Your task to perform on an android device: Is it going to rain tomorrow? Image 0: 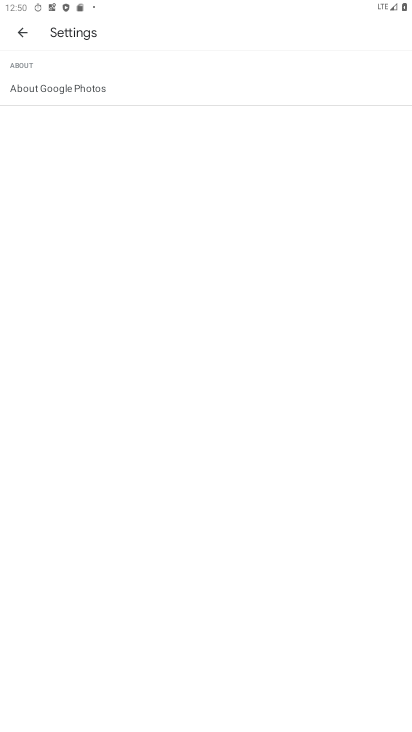
Step 0: press home button
Your task to perform on an android device: Is it going to rain tomorrow? Image 1: 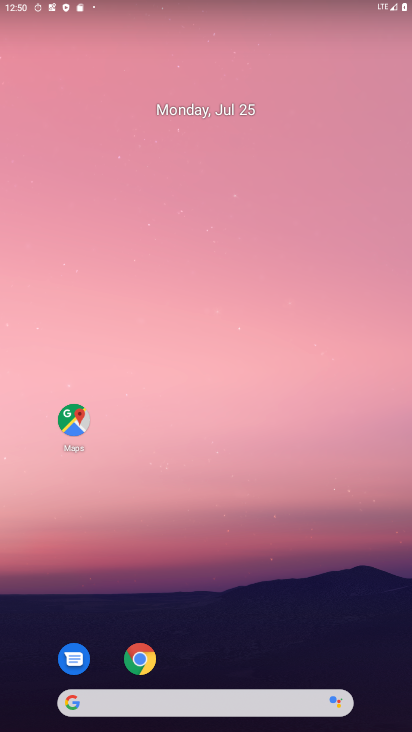
Step 1: drag from (19, 631) to (152, 189)
Your task to perform on an android device: Is it going to rain tomorrow? Image 2: 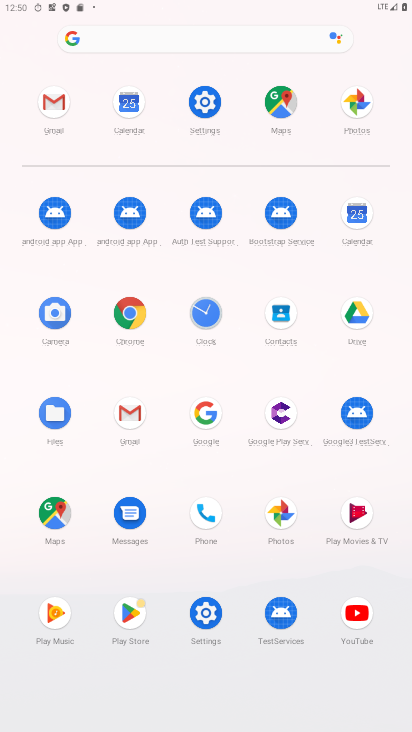
Step 2: click (134, 28)
Your task to perform on an android device: Is it going to rain tomorrow? Image 3: 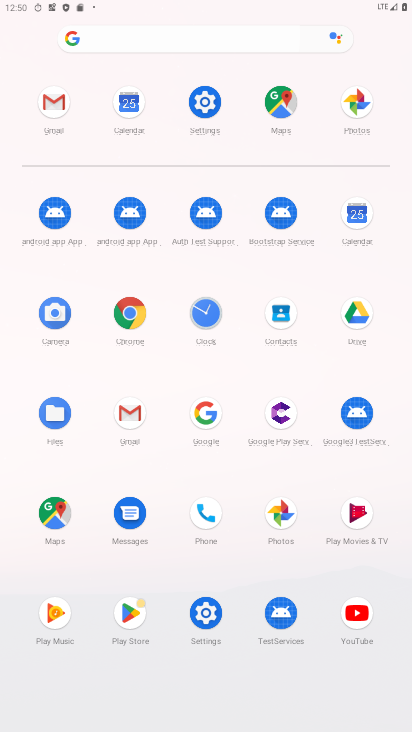
Step 3: click (136, 34)
Your task to perform on an android device: Is it going to rain tomorrow? Image 4: 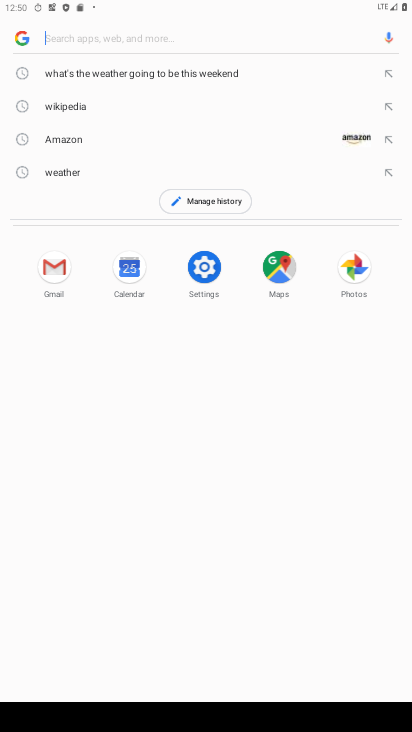
Step 4: type "Is it going to rain tomorrow?"
Your task to perform on an android device: Is it going to rain tomorrow? Image 5: 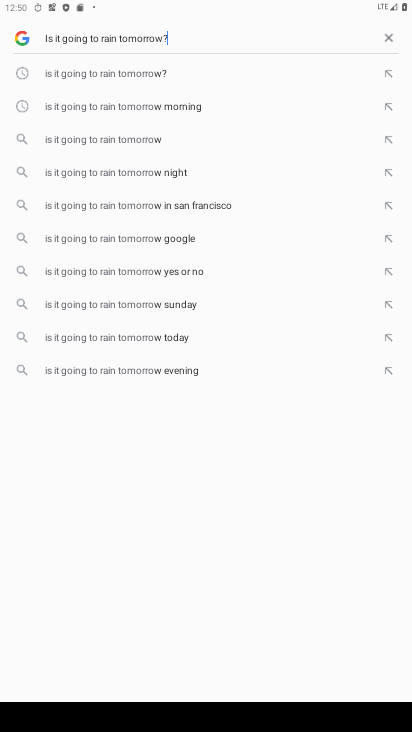
Step 5: type ""
Your task to perform on an android device: Is it going to rain tomorrow? Image 6: 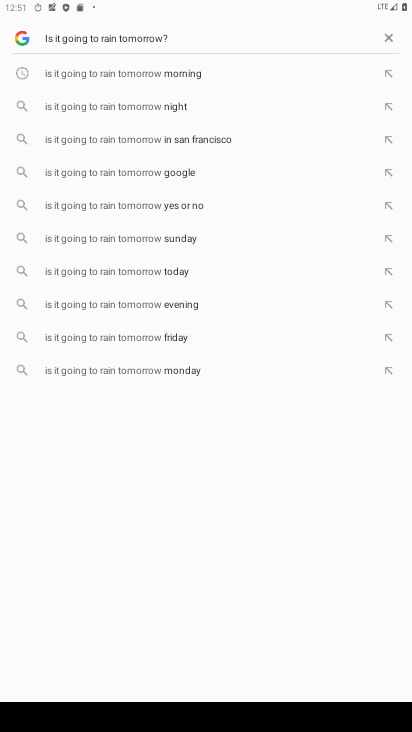
Step 6: type ""
Your task to perform on an android device: Is it going to rain tomorrow? Image 7: 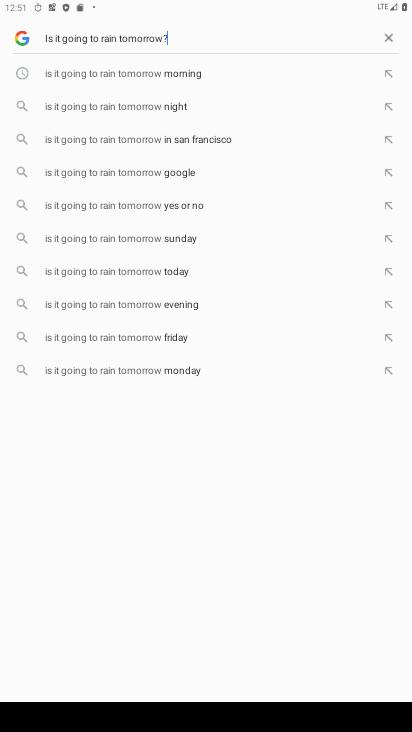
Step 7: task complete